Your task to perform on an android device: Open ESPN.com Image 0: 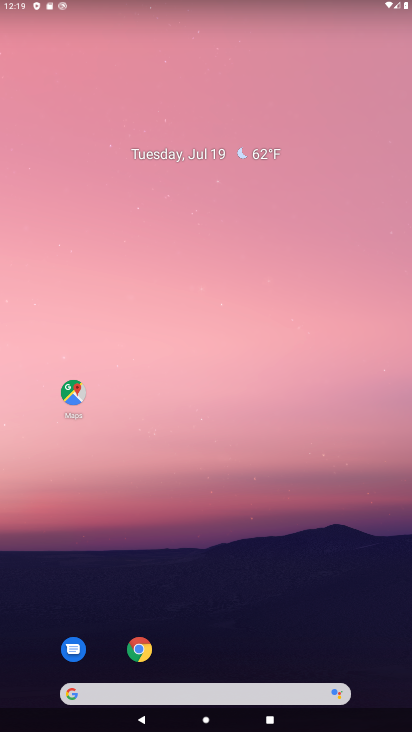
Step 0: drag from (190, 616) to (211, 132)
Your task to perform on an android device: Open ESPN.com Image 1: 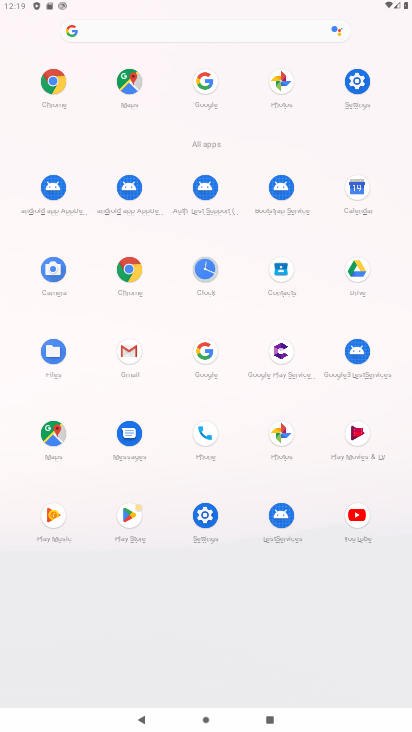
Step 1: click (204, 355)
Your task to perform on an android device: Open ESPN.com Image 2: 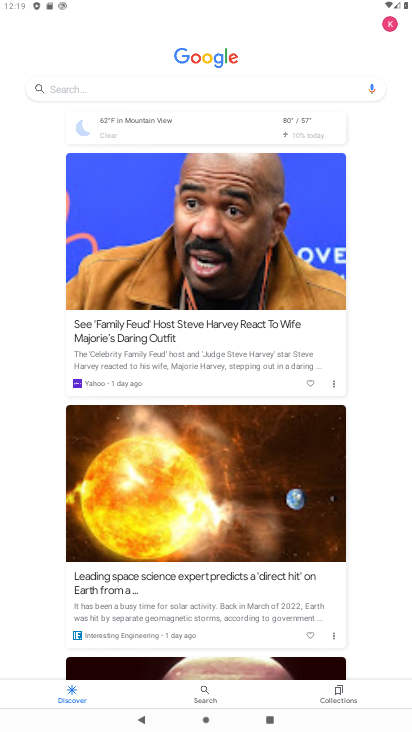
Step 2: click (169, 79)
Your task to perform on an android device: Open ESPN.com Image 3: 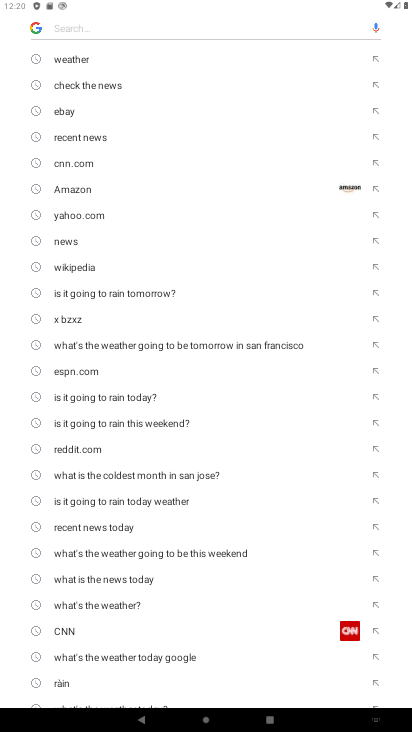
Step 3: type "espn.com"
Your task to perform on an android device: Open ESPN.com Image 4: 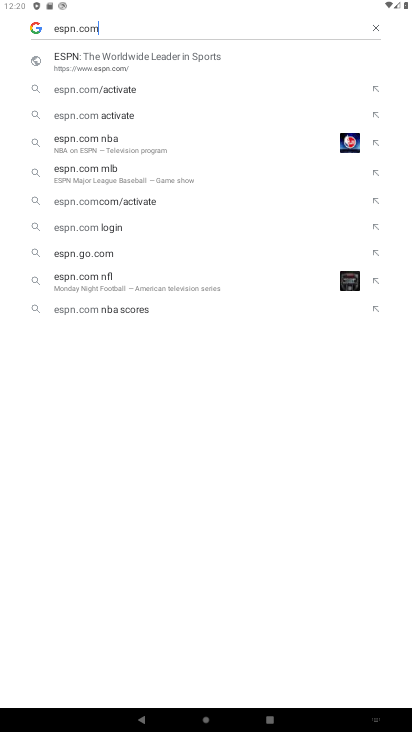
Step 4: click (133, 61)
Your task to perform on an android device: Open ESPN.com Image 5: 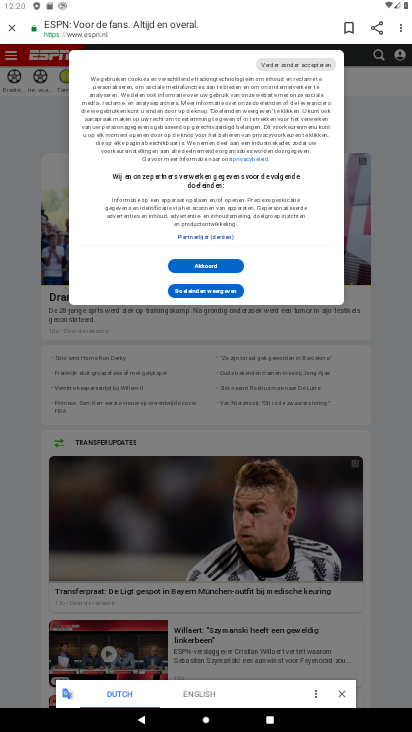
Step 5: task complete